Your task to perform on an android device: Open the stopwatch Image 0: 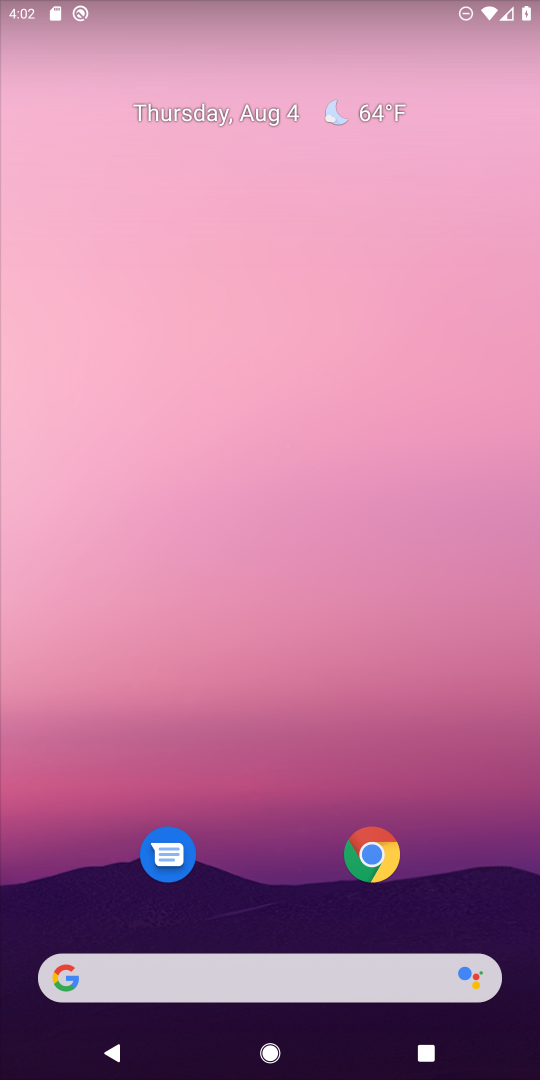
Step 0: drag from (321, 820) to (345, 170)
Your task to perform on an android device: Open the stopwatch Image 1: 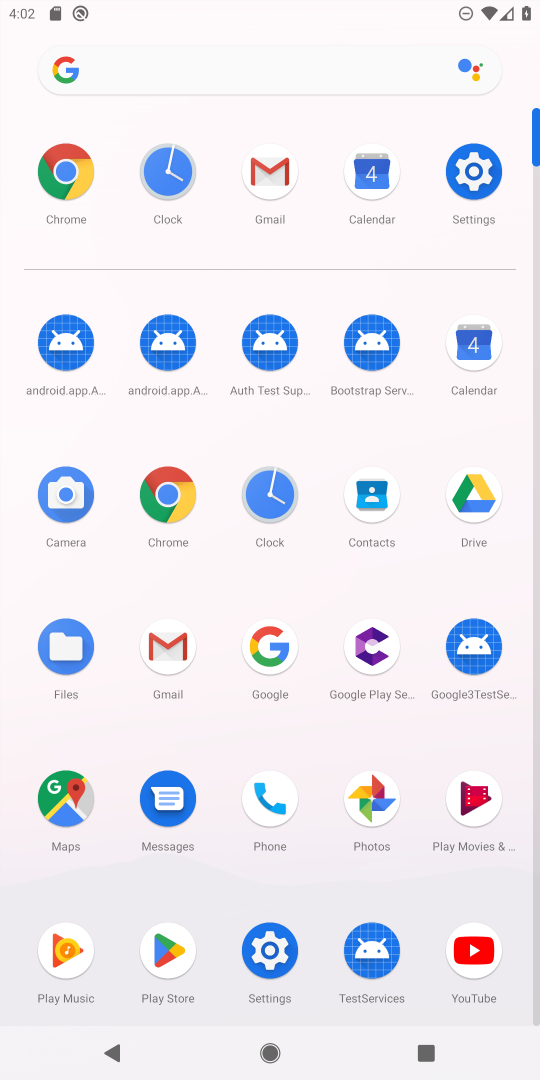
Step 1: click (259, 491)
Your task to perform on an android device: Open the stopwatch Image 2: 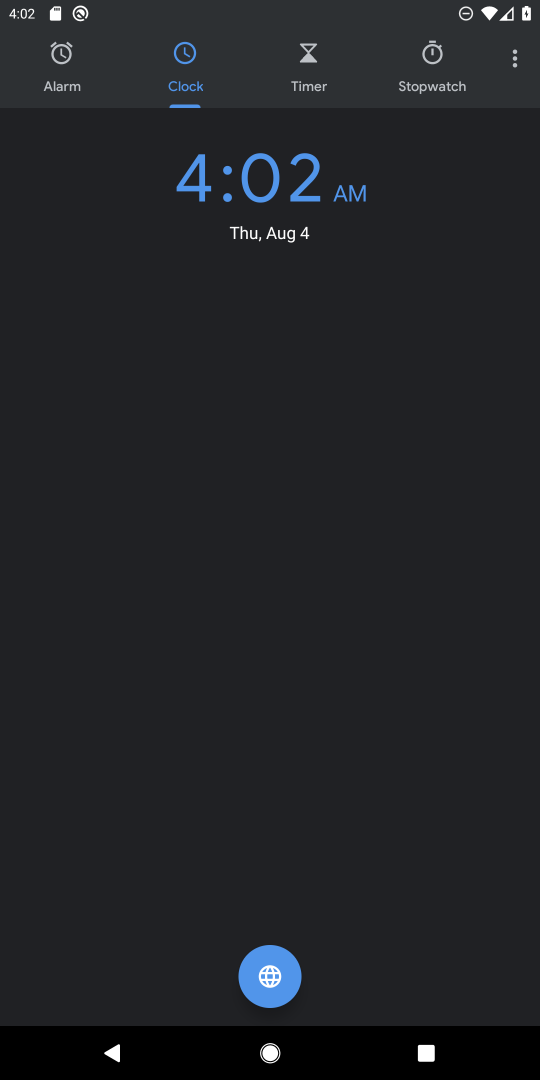
Step 2: click (439, 66)
Your task to perform on an android device: Open the stopwatch Image 3: 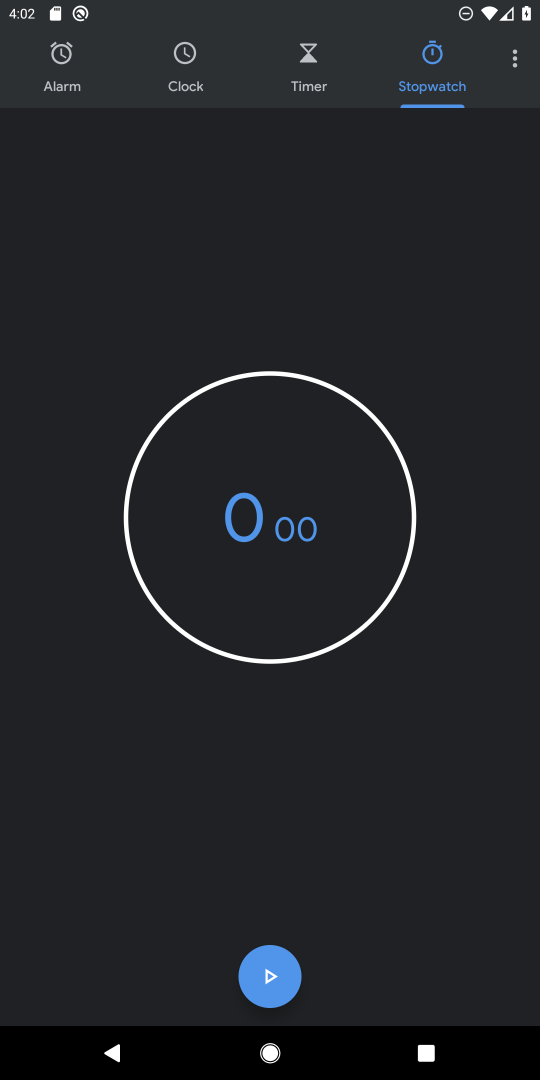
Step 3: task complete